Your task to perform on an android device: When is my next appointment? Image 0: 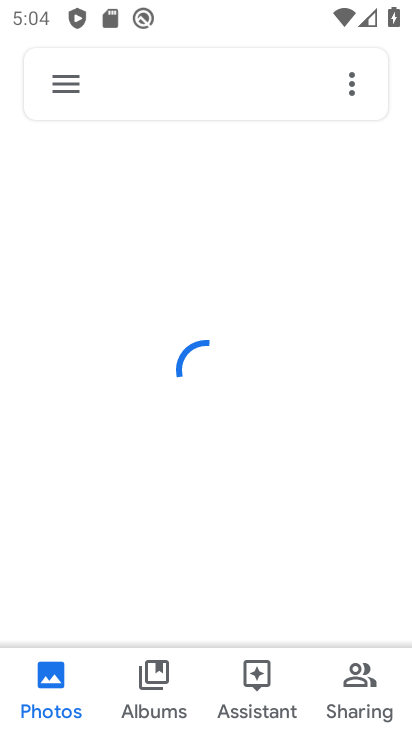
Step 0: press home button
Your task to perform on an android device: When is my next appointment? Image 1: 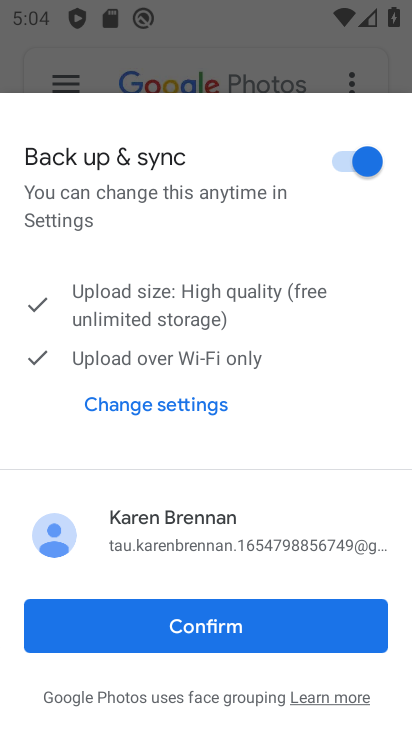
Step 1: press back button
Your task to perform on an android device: When is my next appointment? Image 2: 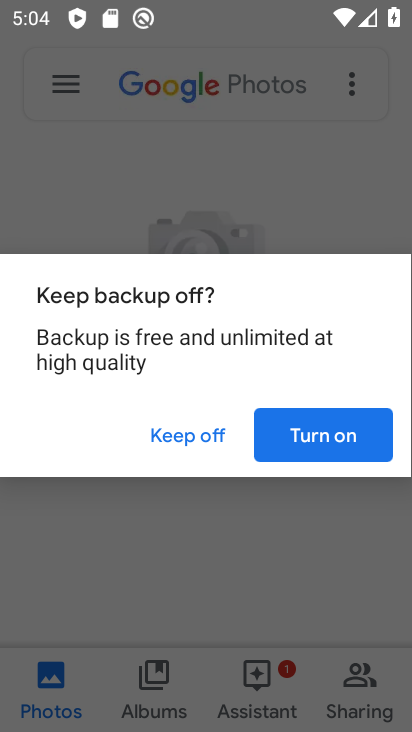
Step 2: press home button
Your task to perform on an android device: When is my next appointment? Image 3: 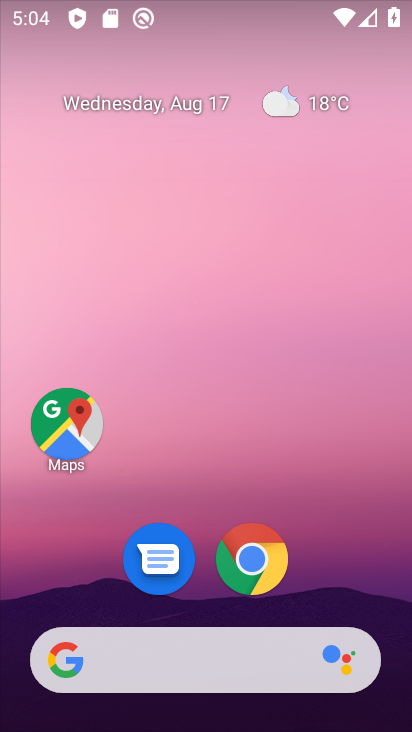
Step 3: drag from (192, 497) to (126, 17)
Your task to perform on an android device: When is my next appointment? Image 4: 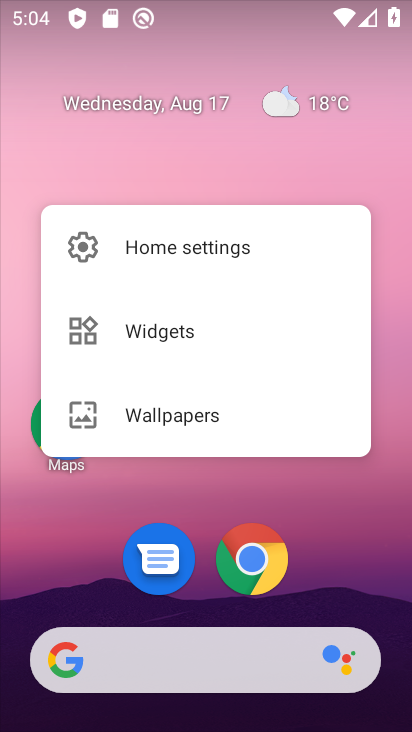
Step 4: drag from (203, 639) to (214, 160)
Your task to perform on an android device: When is my next appointment? Image 5: 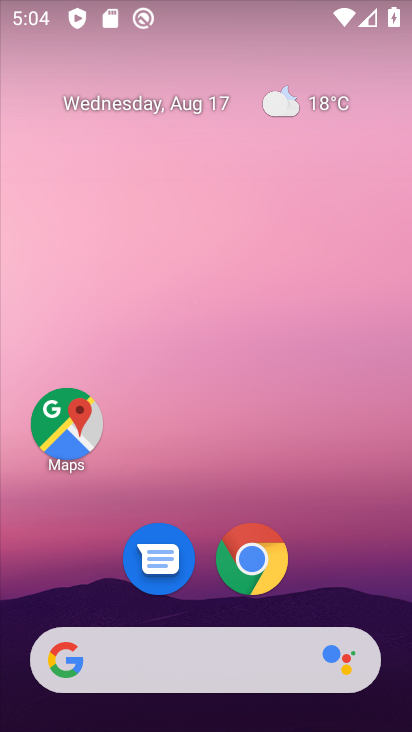
Step 5: drag from (228, 650) to (164, 22)
Your task to perform on an android device: When is my next appointment? Image 6: 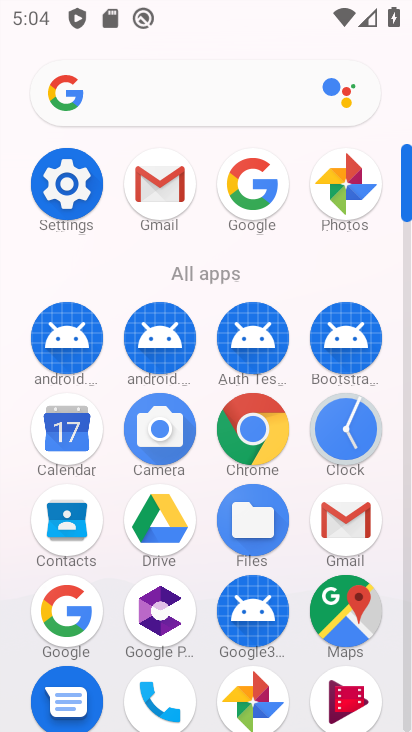
Step 6: click (54, 434)
Your task to perform on an android device: When is my next appointment? Image 7: 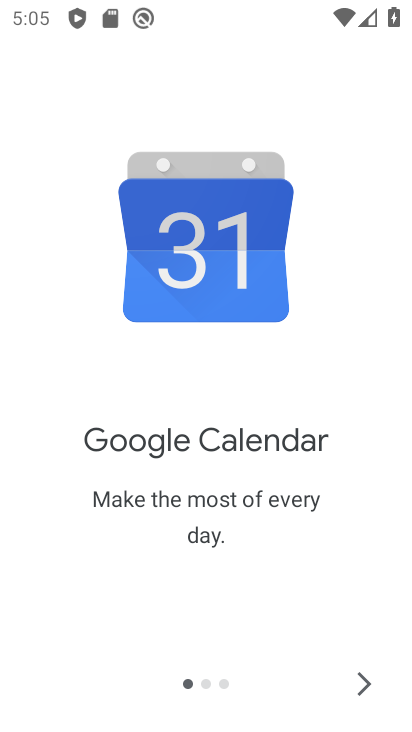
Step 7: click (358, 685)
Your task to perform on an android device: When is my next appointment? Image 8: 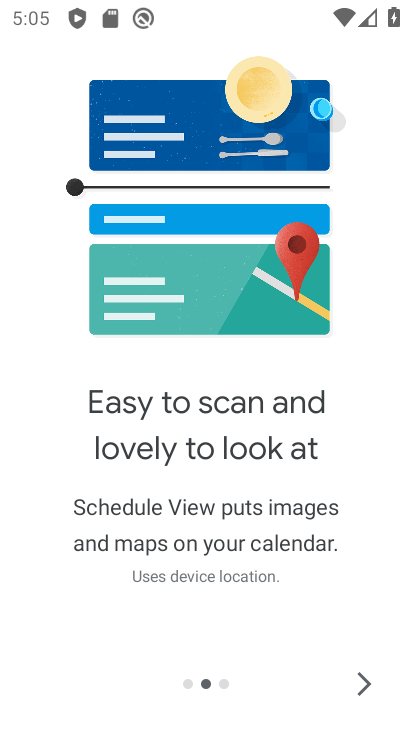
Step 8: click (358, 696)
Your task to perform on an android device: When is my next appointment? Image 9: 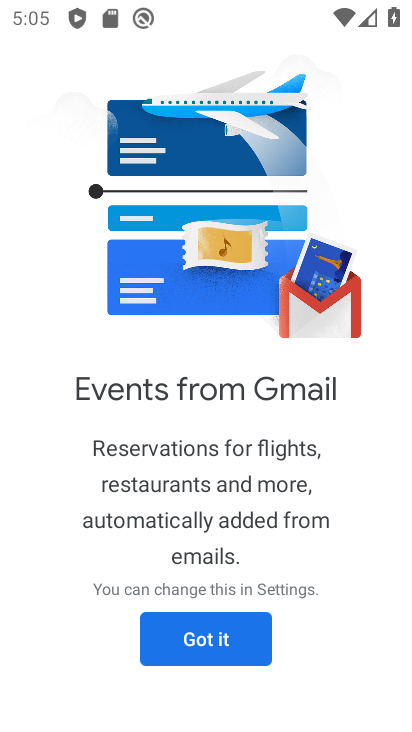
Step 9: click (192, 646)
Your task to perform on an android device: When is my next appointment? Image 10: 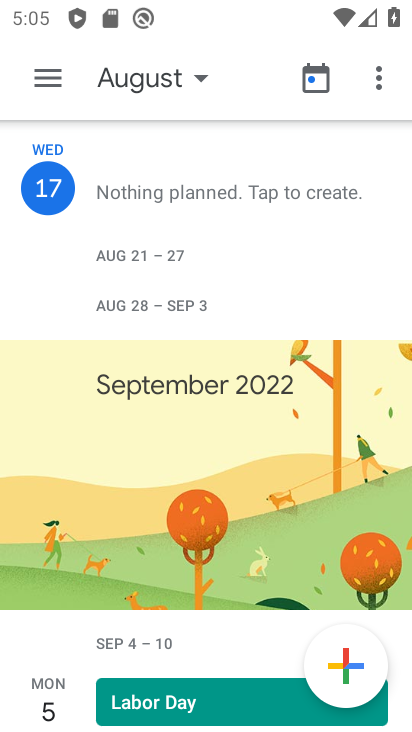
Step 10: click (42, 71)
Your task to perform on an android device: When is my next appointment? Image 11: 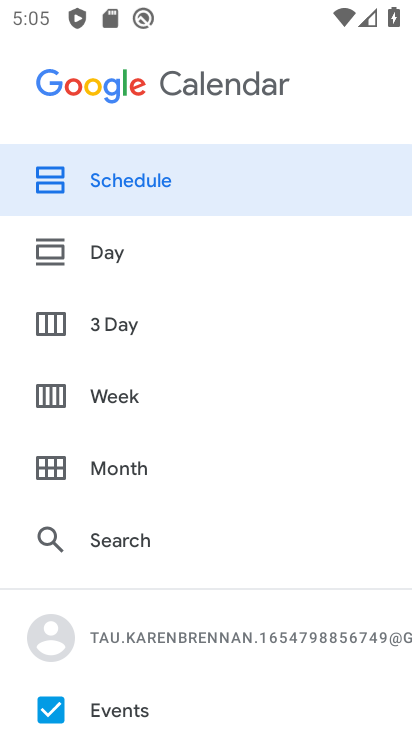
Step 11: click (133, 166)
Your task to perform on an android device: When is my next appointment? Image 12: 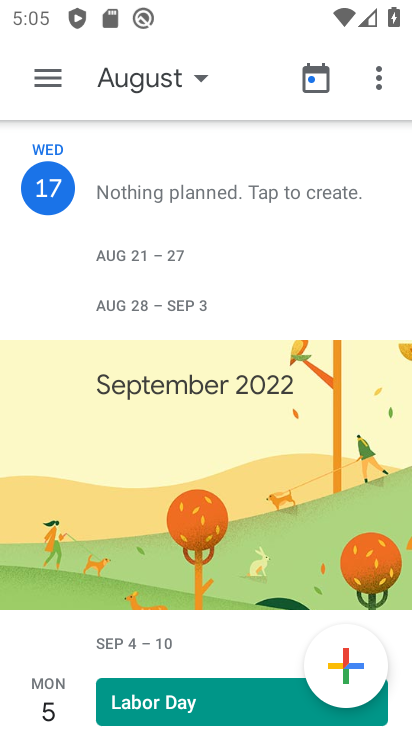
Step 12: task complete